Your task to perform on an android device: Go to network settings Image 0: 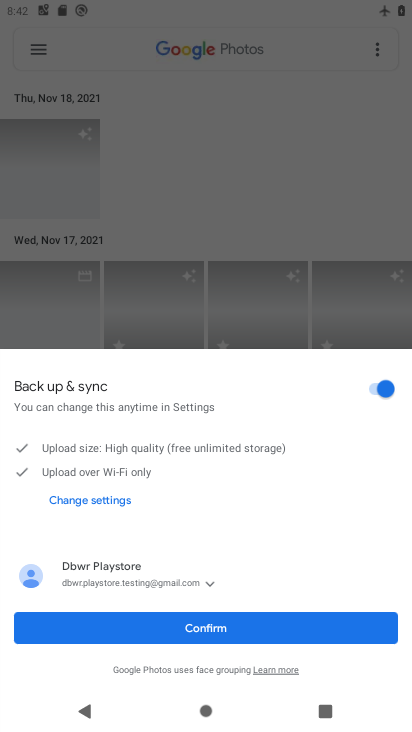
Step 0: press home button
Your task to perform on an android device: Go to network settings Image 1: 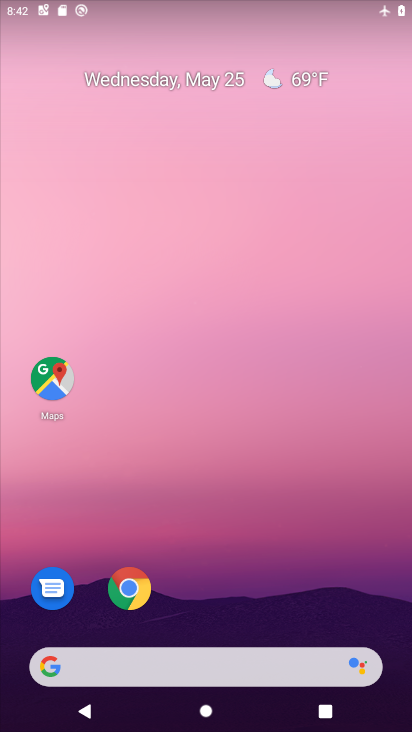
Step 1: drag from (373, 618) to (376, 298)
Your task to perform on an android device: Go to network settings Image 2: 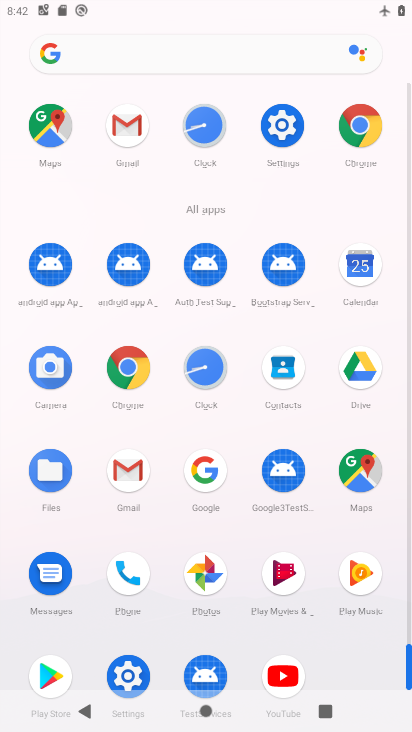
Step 2: click (292, 165)
Your task to perform on an android device: Go to network settings Image 3: 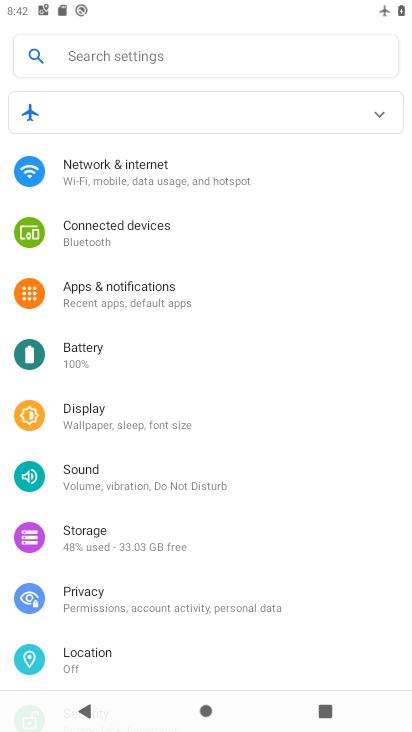
Step 3: click (260, 176)
Your task to perform on an android device: Go to network settings Image 4: 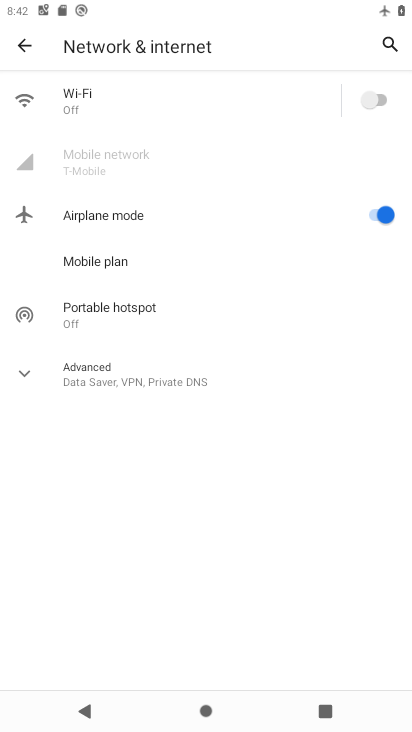
Step 4: task complete